Your task to perform on an android device: Go to Google maps Image 0: 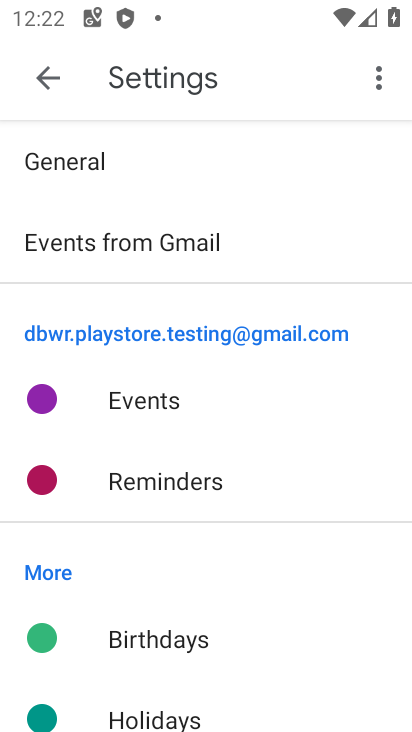
Step 0: press home button
Your task to perform on an android device: Go to Google maps Image 1: 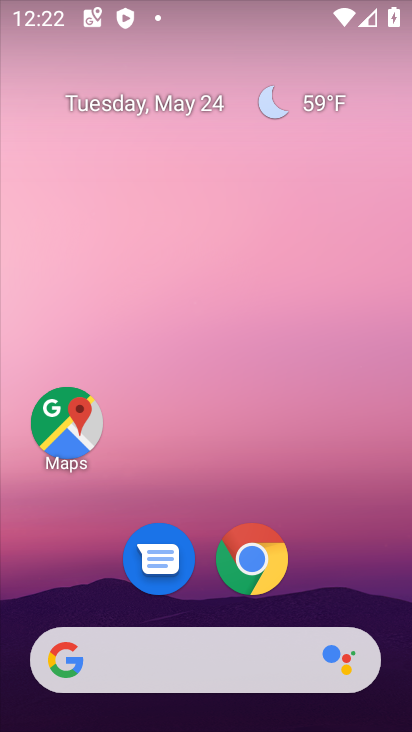
Step 1: click (76, 409)
Your task to perform on an android device: Go to Google maps Image 2: 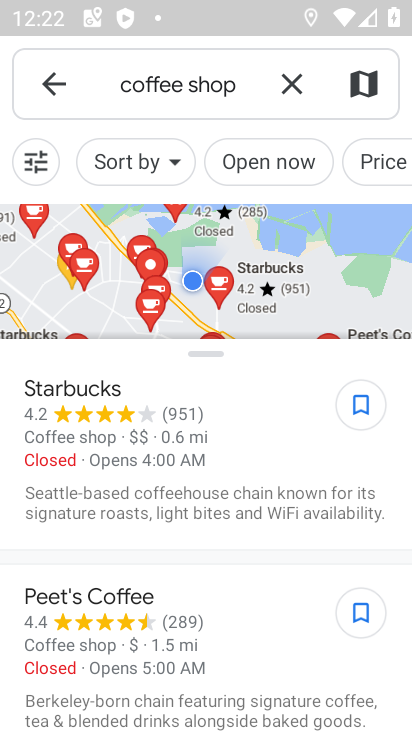
Step 2: click (49, 74)
Your task to perform on an android device: Go to Google maps Image 3: 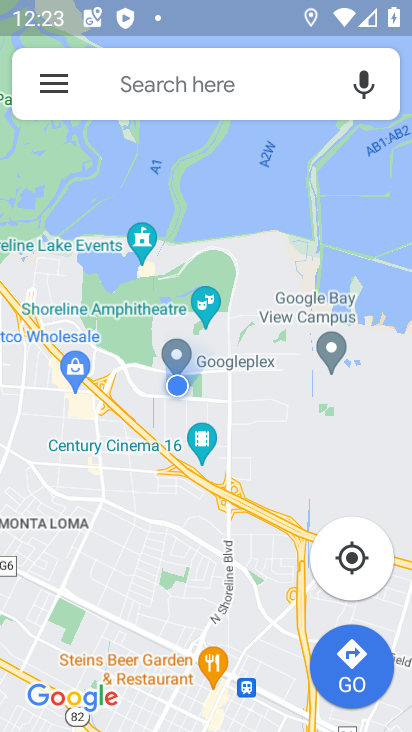
Step 3: task complete